Your task to perform on an android device: Check the news Image 0: 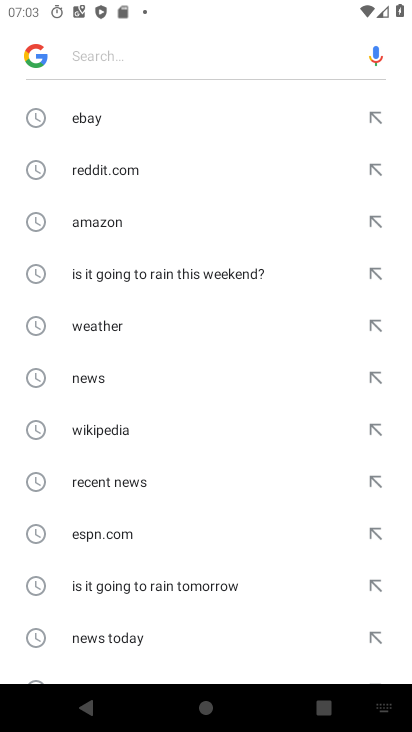
Step 0: type "Check the news"
Your task to perform on an android device: Check the news Image 1: 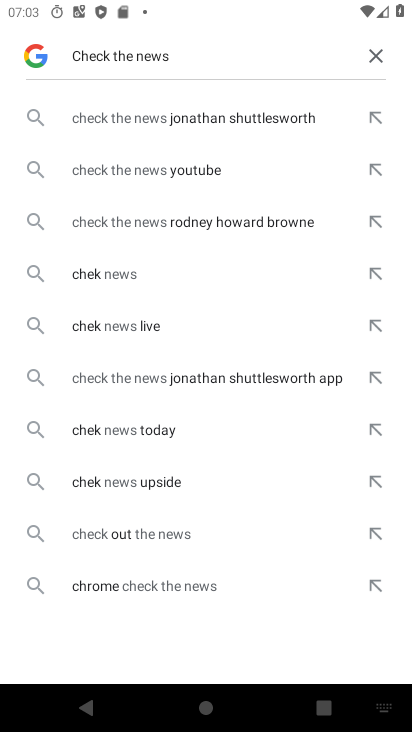
Step 1: click (164, 173)
Your task to perform on an android device: Check the news Image 2: 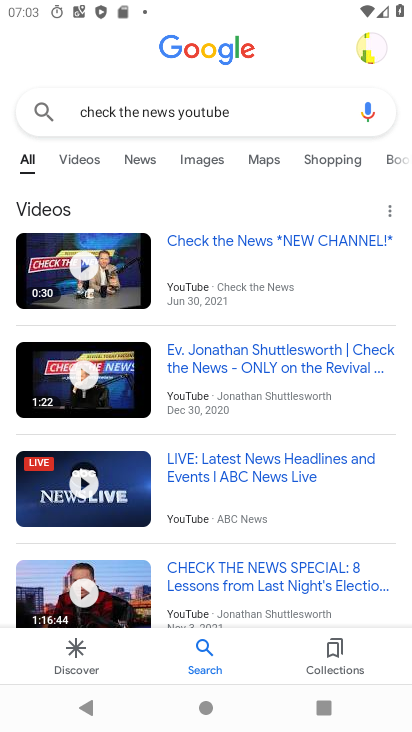
Step 2: task complete